Your task to perform on an android device: toggle priority inbox in the gmail app Image 0: 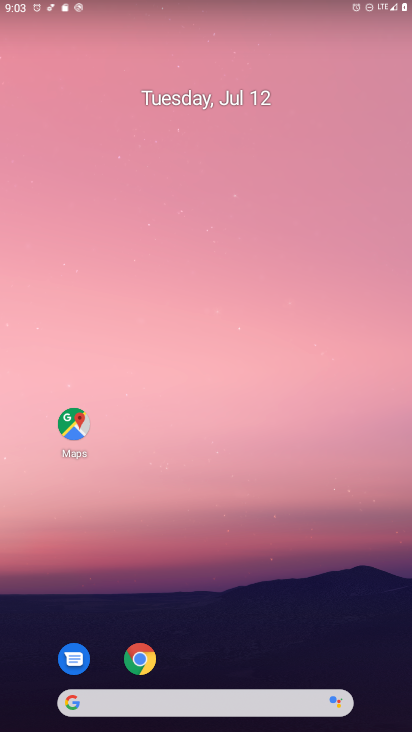
Step 0: drag from (216, 705) to (262, 190)
Your task to perform on an android device: toggle priority inbox in the gmail app Image 1: 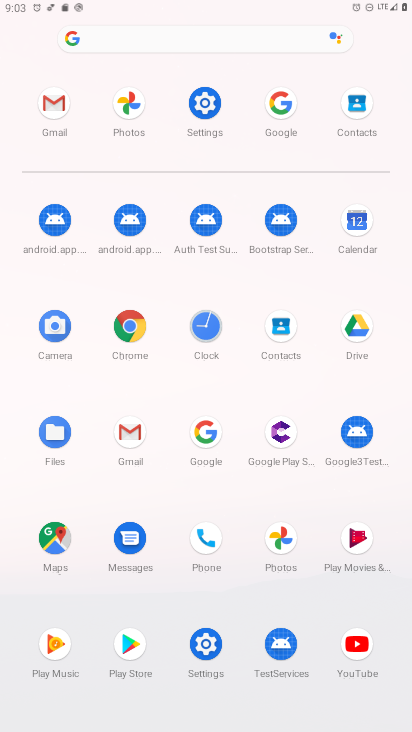
Step 1: click (57, 100)
Your task to perform on an android device: toggle priority inbox in the gmail app Image 2: 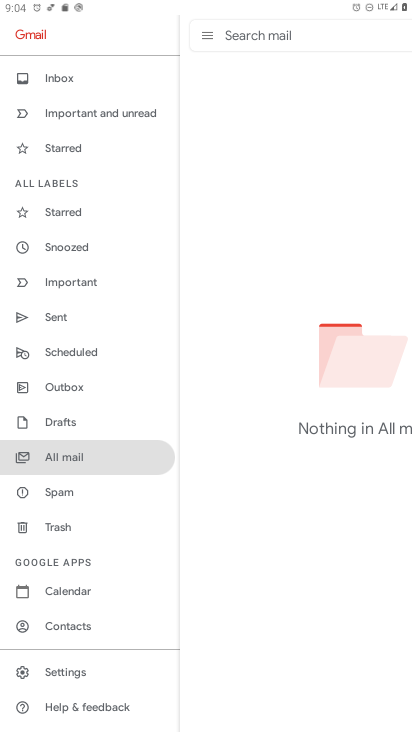
Step 2: click (66, 670)
Your task to perform on an android device: toggle priority inbox in the gmail app Image 3: 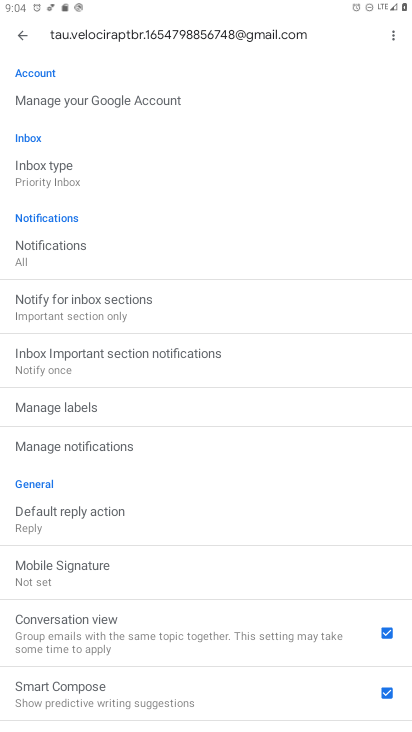
Step 3: click (70, 179)
Your task to perform on an android device: toggle priority inbox in the gmail app Image 4: 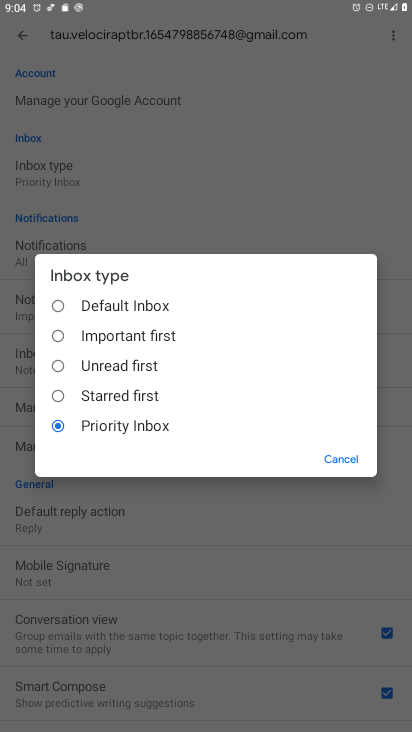
Step 4: click (92, 396)
Your task to perform on an android device: toggle priority inbox in the gmail app Image 5: 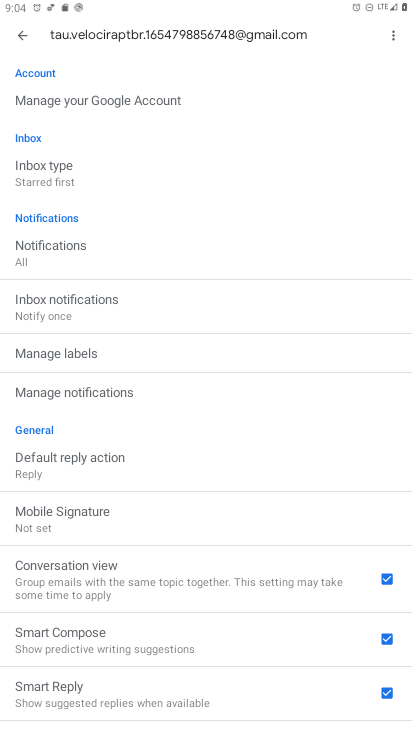
Step 5: task complete